Your task to perform on an android device: Open Amazon Image 0: 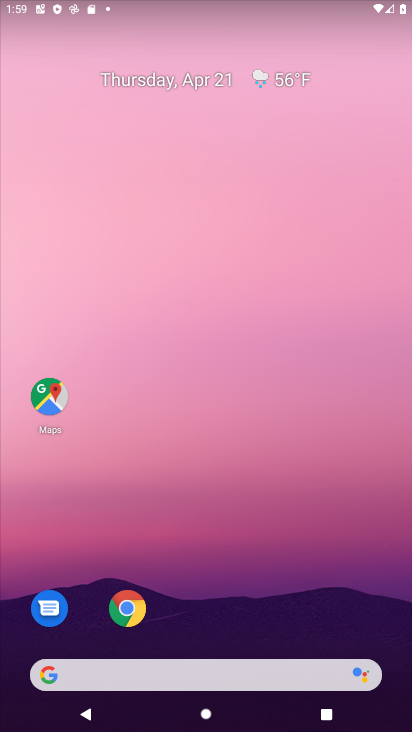
Step 0: click (126, 607)
Your task to perform on an android device: Open Amazon Image 1: 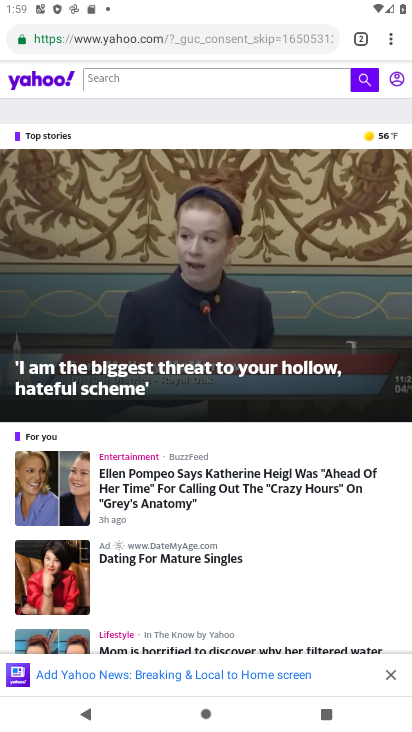
Step 1: click (390, 35)
Your task to perform on an android device: Open Amazon Image 2: 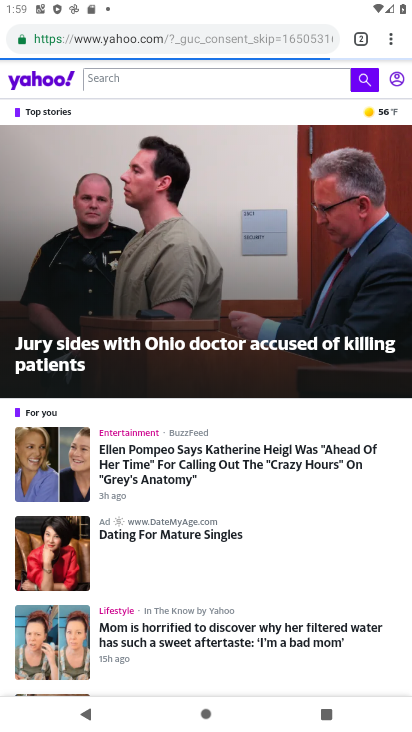
Step 2: click (361, 38)
Your task to perform on an android device: Open Amazon Image 3: 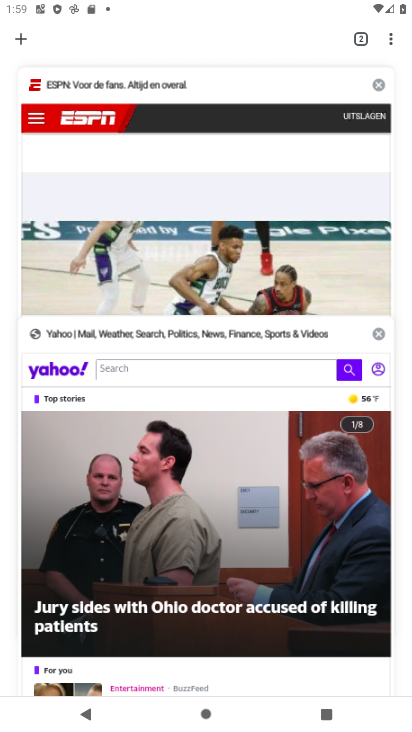
Step 3: click (17, 37)
Your task to perform on an android device: Open Amazon Image 4: 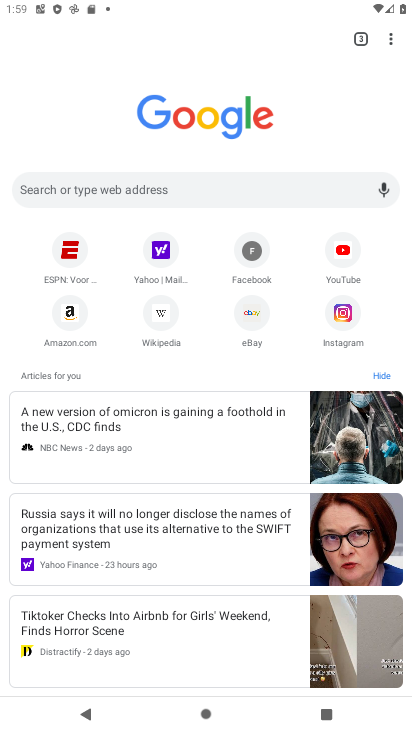
Step 4: click (74, 309)
Your task to perform on an android device: Open Amazon Image 5: 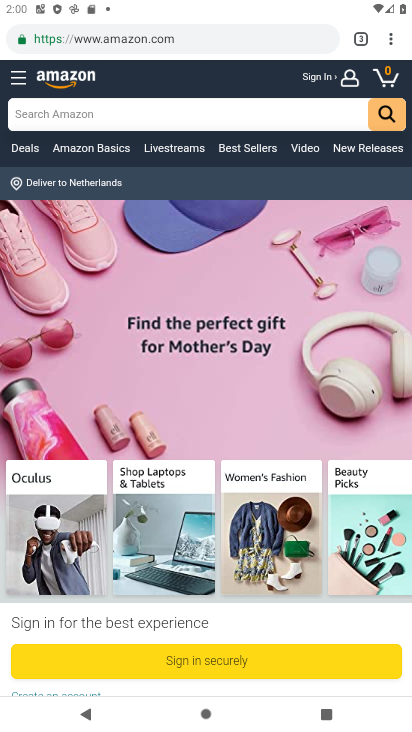
Step 5: task complete